Your task to perform on an android device: toggle translation in the chrome app Image 0: 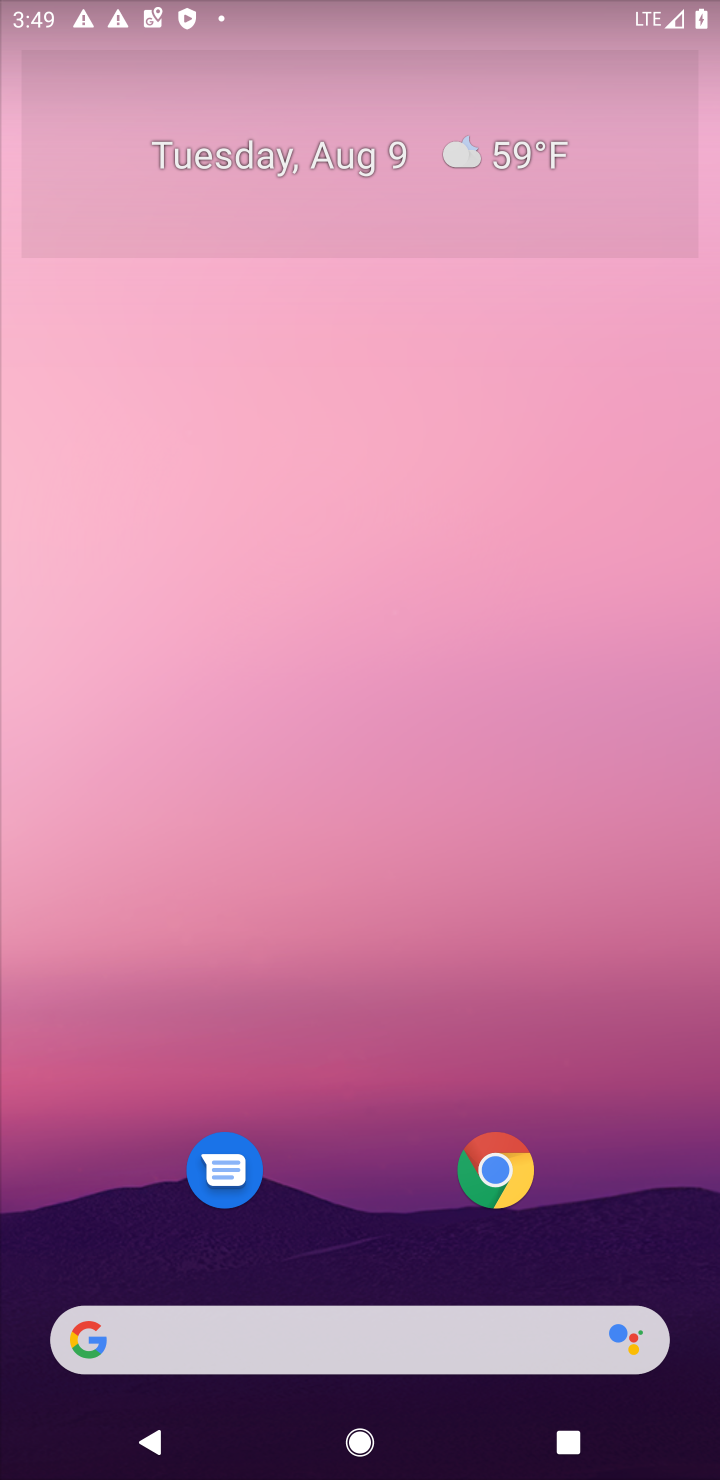
Step 0: press home button
Your task to perform on an android device: toggle translation in the chrome app Image 1: 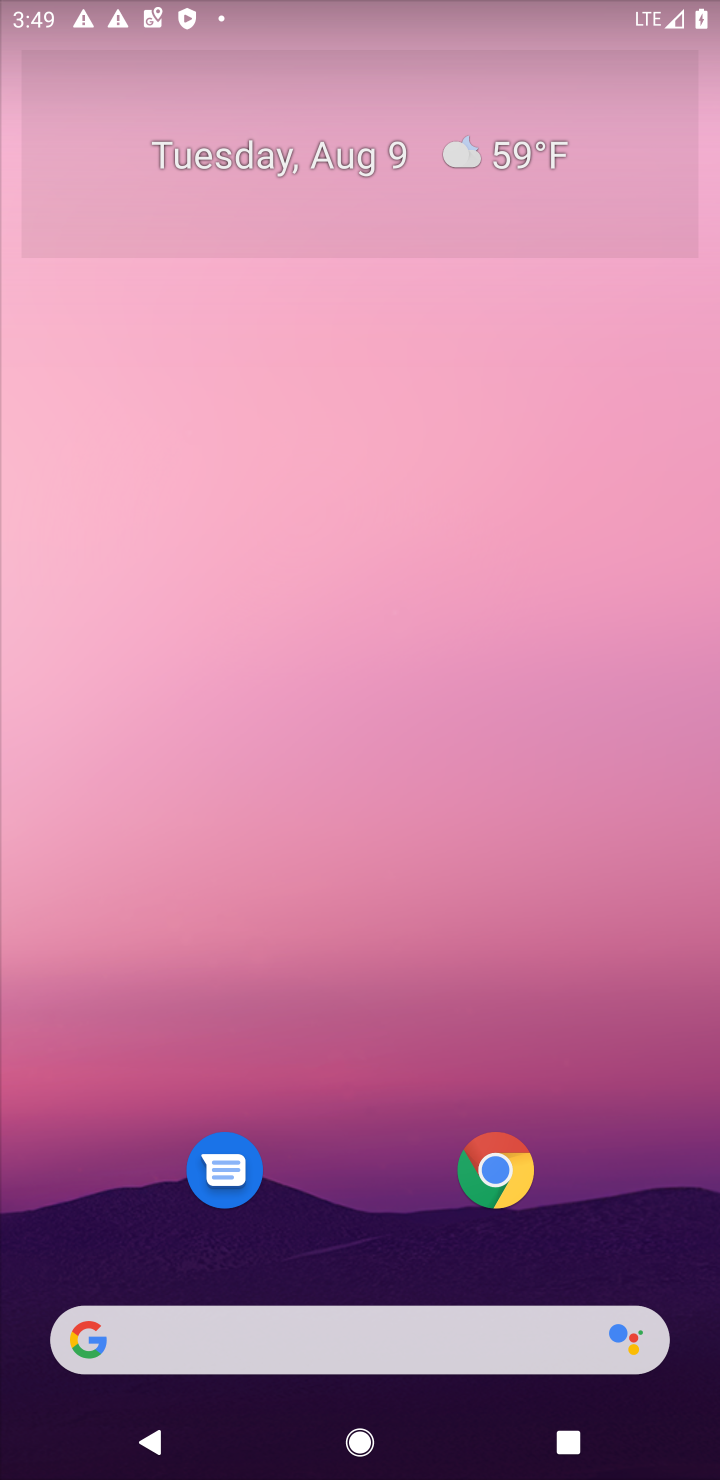
Step 1: click (498, 1169)
Your task to perform on an android device: toggle translation in the chrome app Image 2: 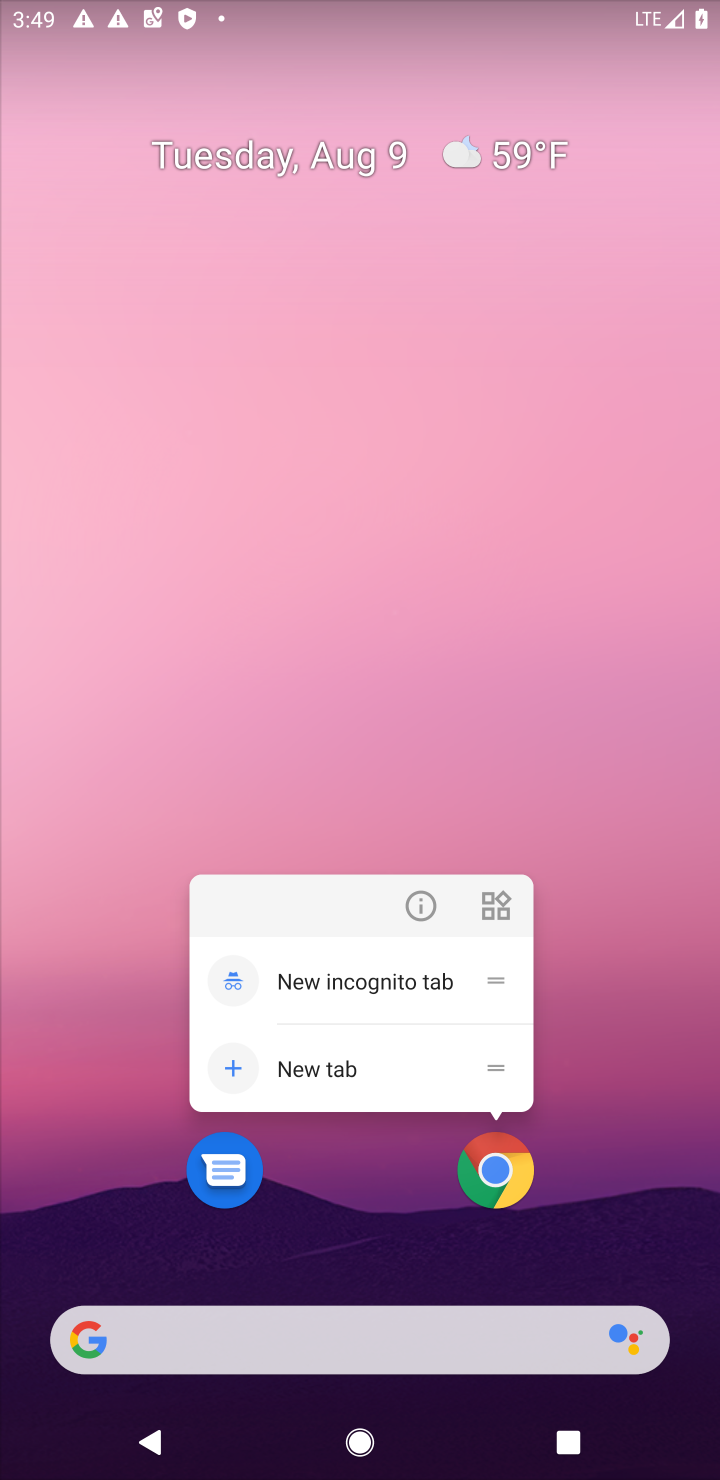
Step 2: click (498, 1169)
Your task to perform on an android device: toggle translation in the chrome app Image 3: 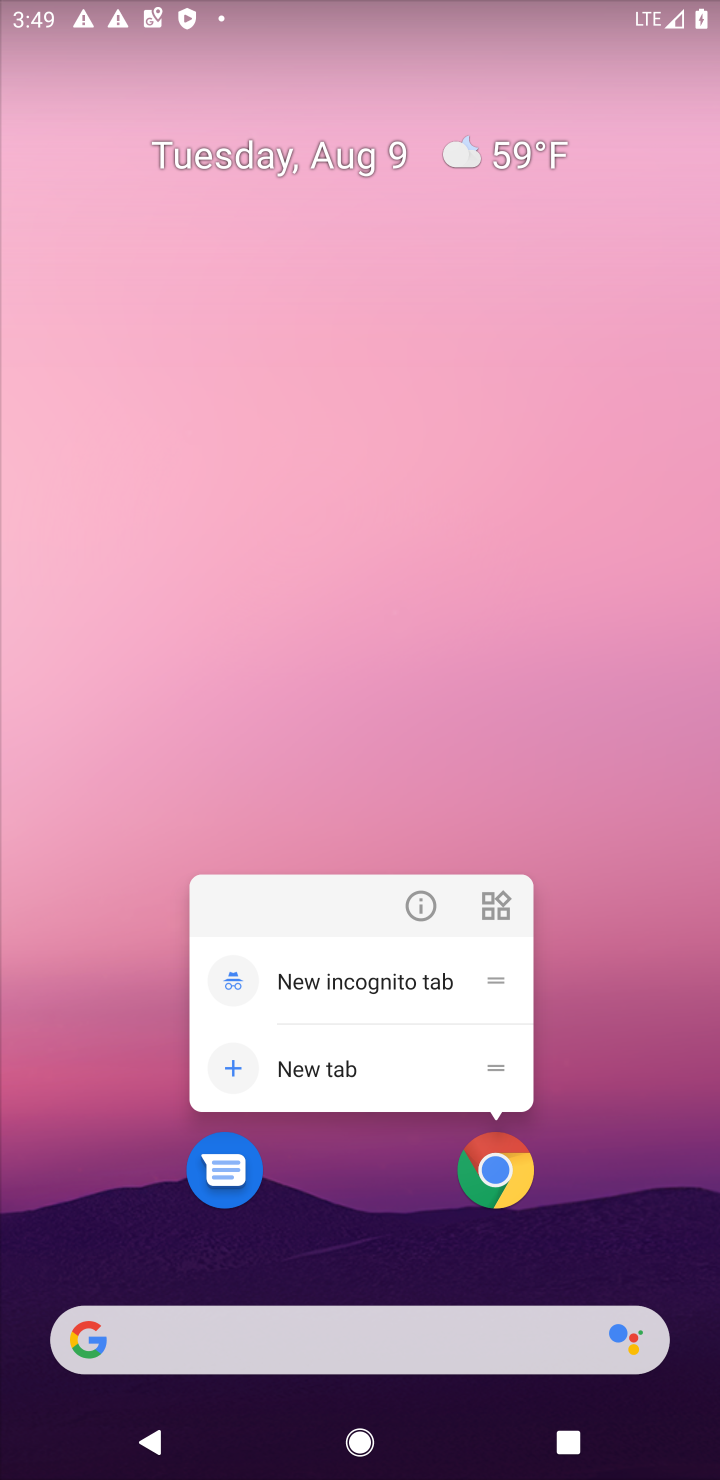
Step 3: click (504, 1165)
Your task to perform on an android device: toggle translation in the chrome app Image 4: 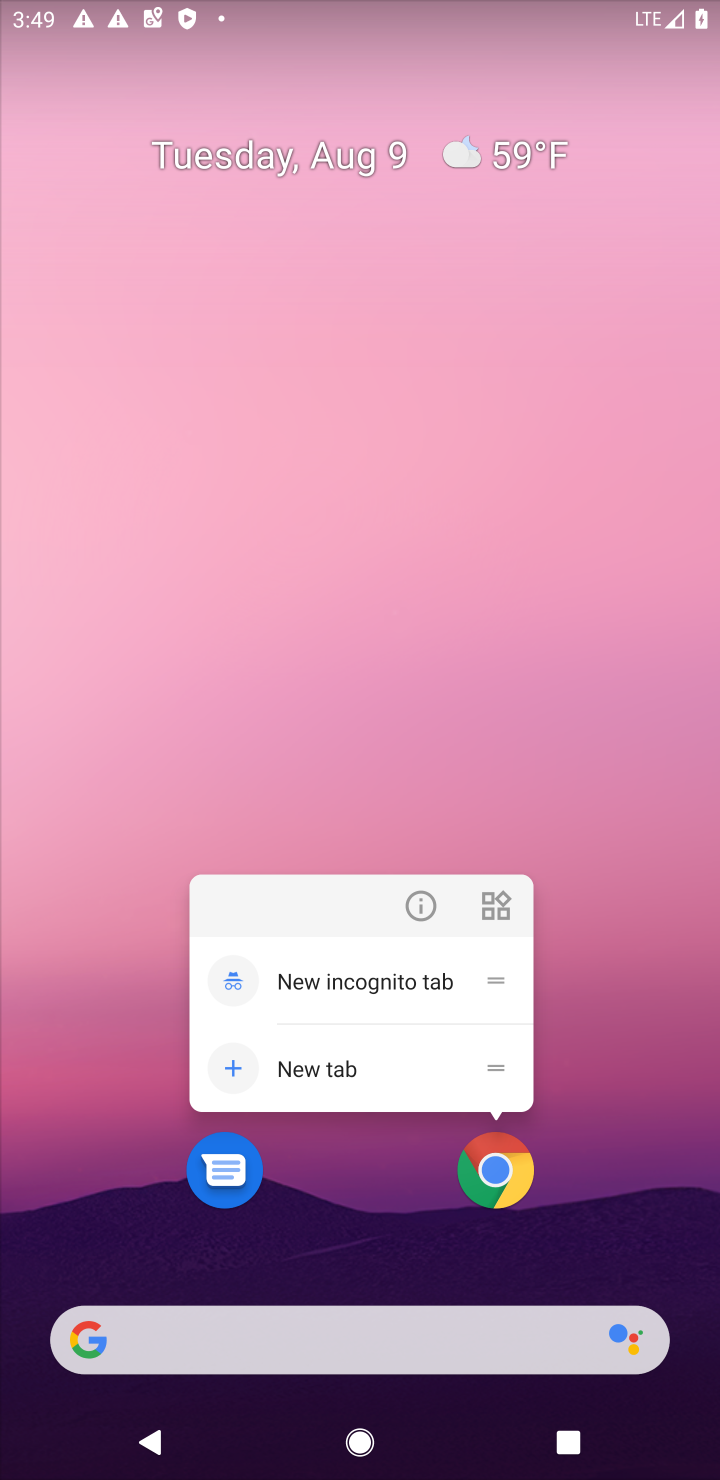
Step 4: click (516, 1187)
Your task to perform on an android device: toggle translation in the chrome app Image 5: 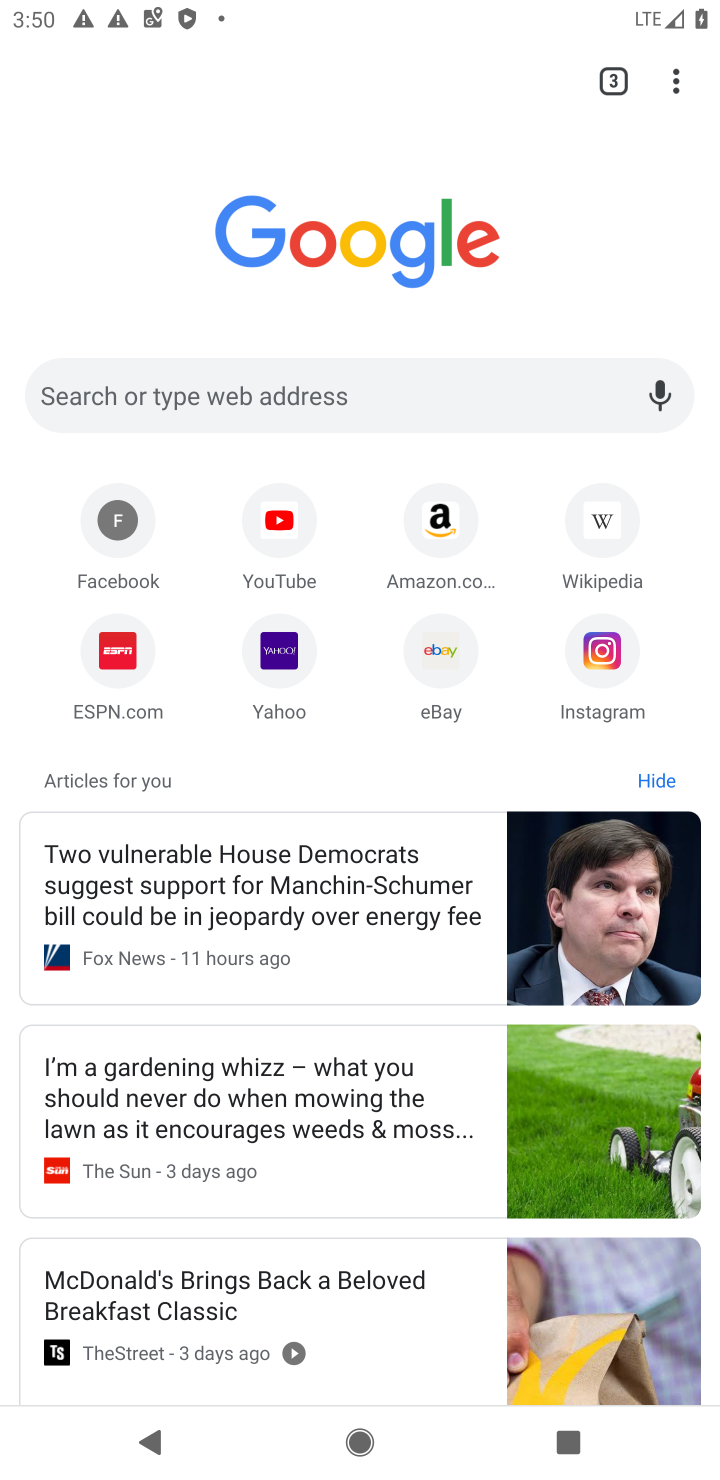
Step 5: drag from (677, 87) to (348, 679)
Your task to perform on an android device: toggle translation in the chrome app Image 6: 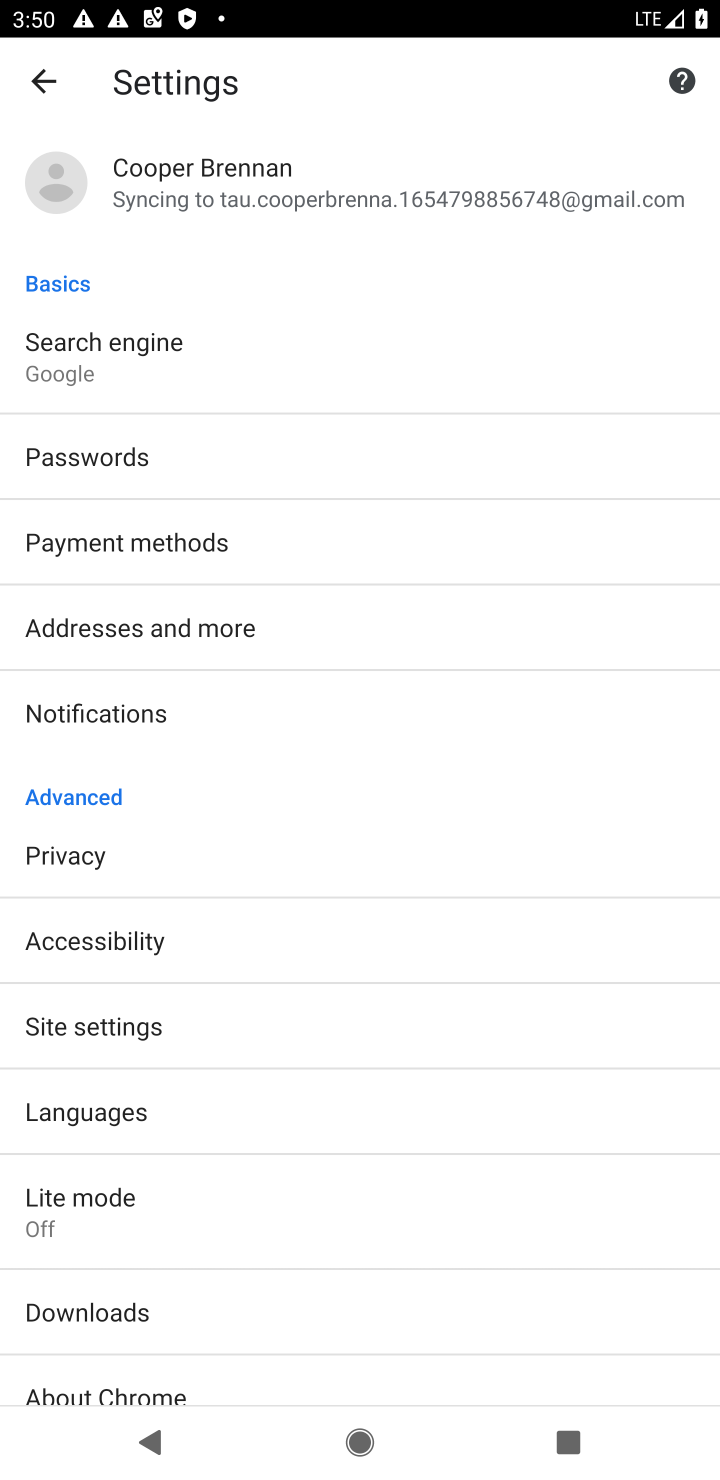
Step 6: click (102, 1105)
Your task to perform on an android device: toggle translation in the chrome app Image 7: 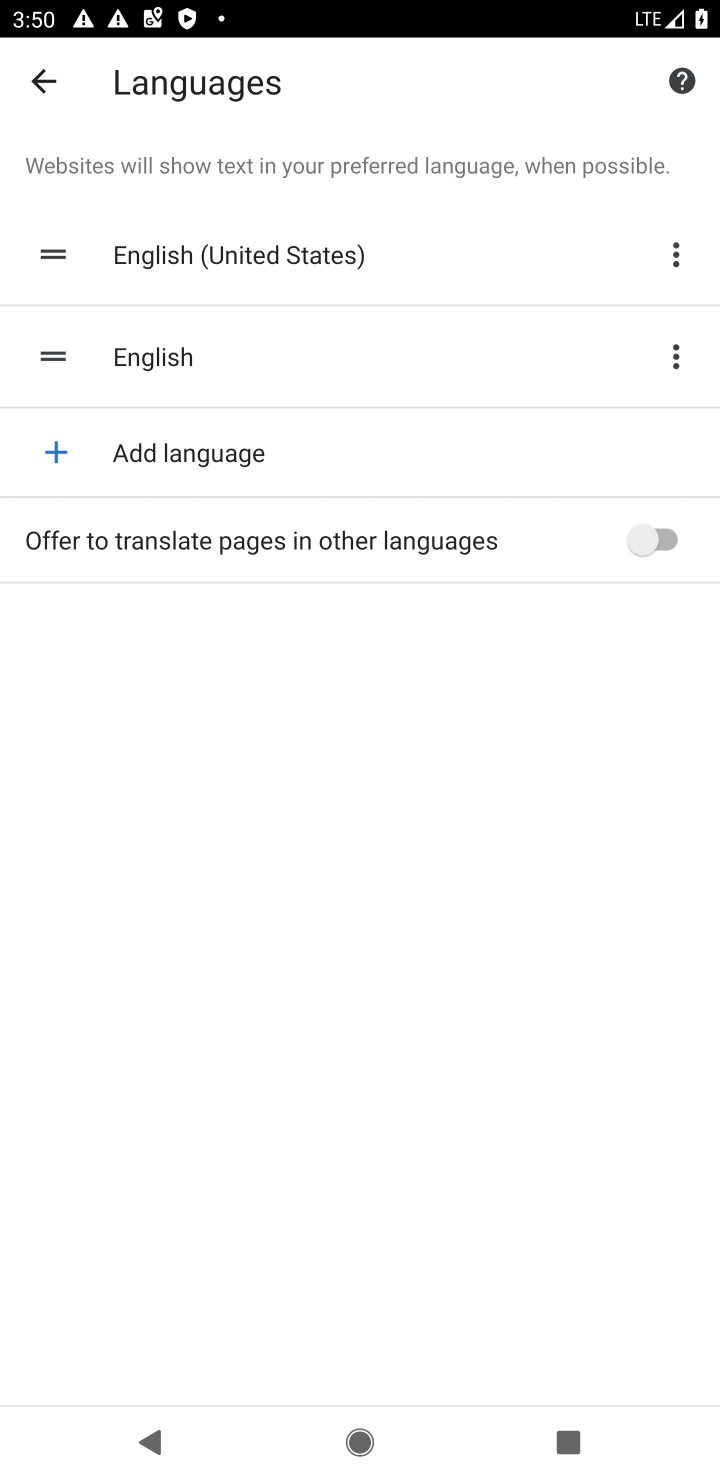
Step 7: click (655, 532)
Your task to perform on an android device: toggle translation in the chrome app Image 8: 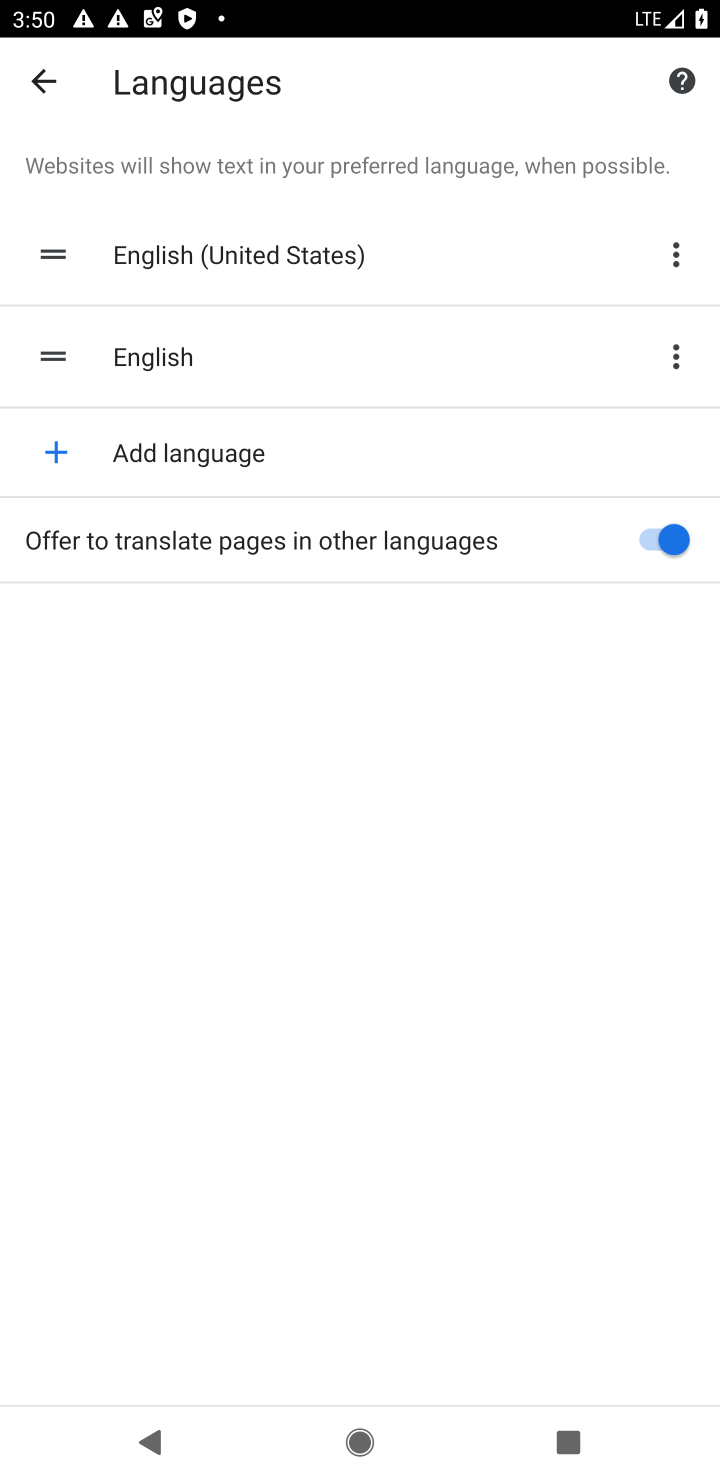
Step 8: task complete